Your task to perform on an android device: delete a single message in the gmail app Image 0: 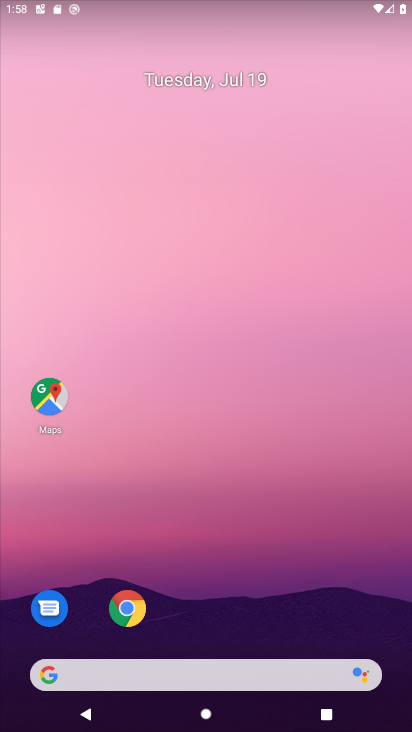
Step 0: drag from (238, 616) to (258, 172)
Your task to perform on an android device: delete a single message in the gmail app Image 1: 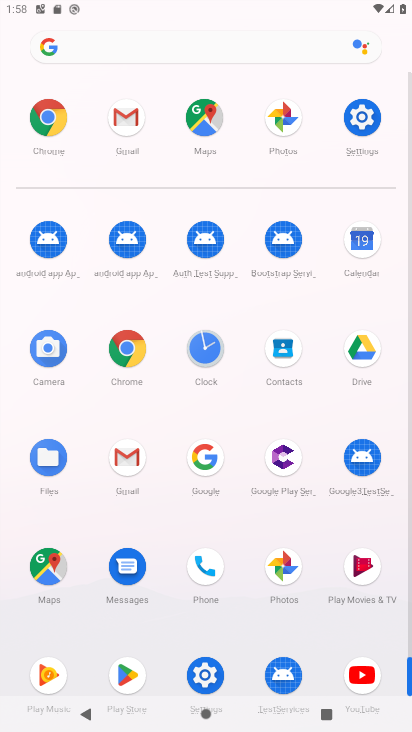
Step 1: click (130, 469)
Your task to perform on an android device: delete a single message in the gmail app Image 2: 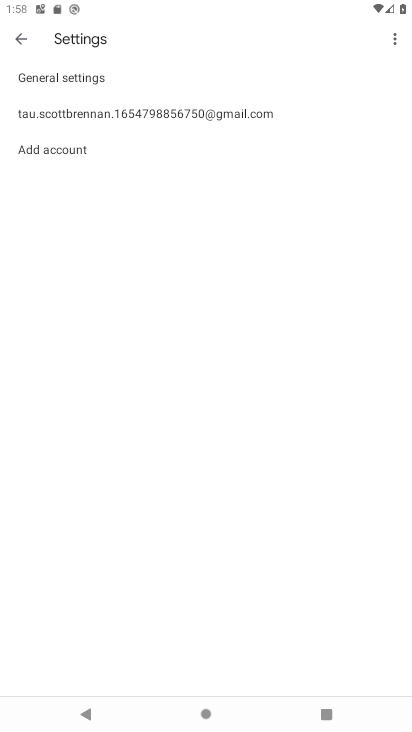
Step 2: click (99, 709)
Your task to perform on an android device: delete a single message in the gmail app Image 3: 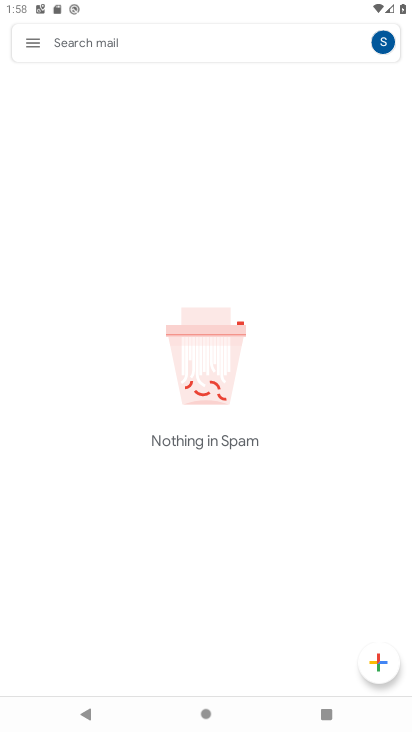
Step 3: click (34, 54)
Your task to perform on an android device: delete a single message in the gmail app Image 4: 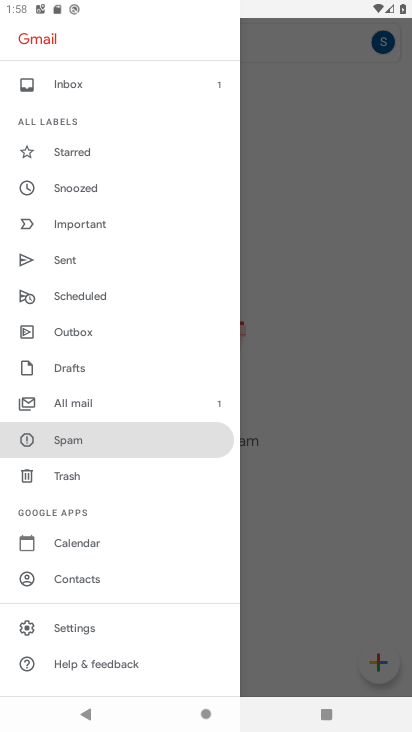
Step 4: drag from (94, 119) to (103, 437)
Your task to perform on an android device: delete a single message in the gmail app Image 5: 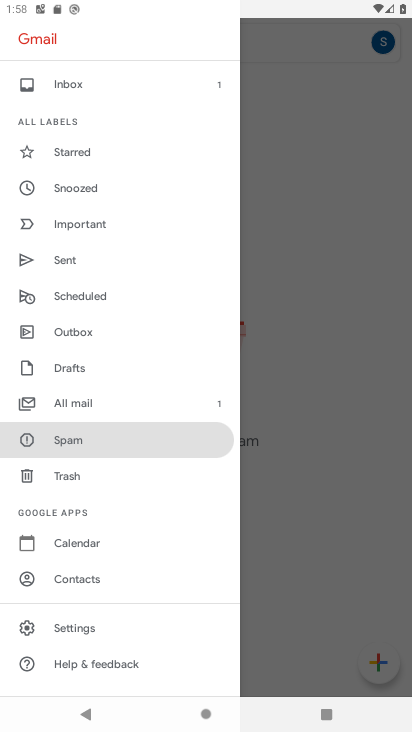
Step 5: click (103, 408)
Your task to perform on an android device: delete a single message in the gmail app Image 6: 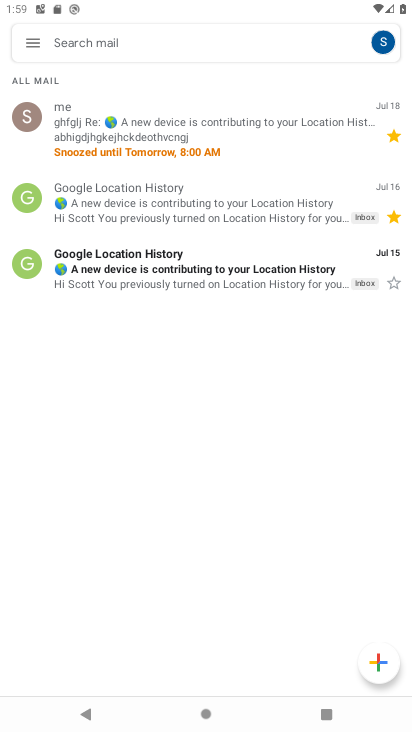
Step 6: click (213, 159)
Your task to perform on an android device: delete a single message in the gmail app Image 7: 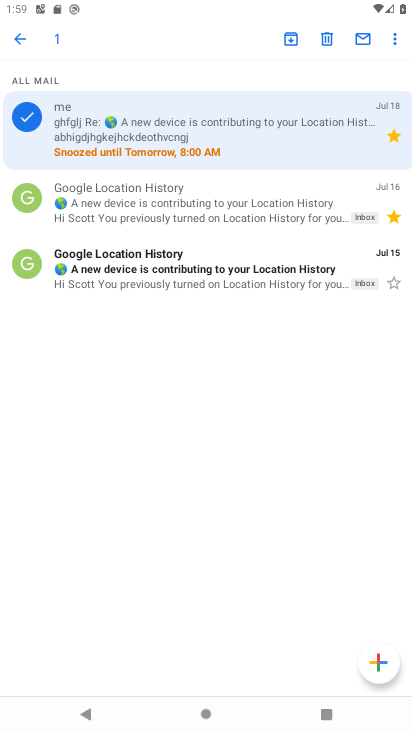
Step 7: click (330, 43)
Your task to perform on an android device: delete a single message in the gmail app Image 8: 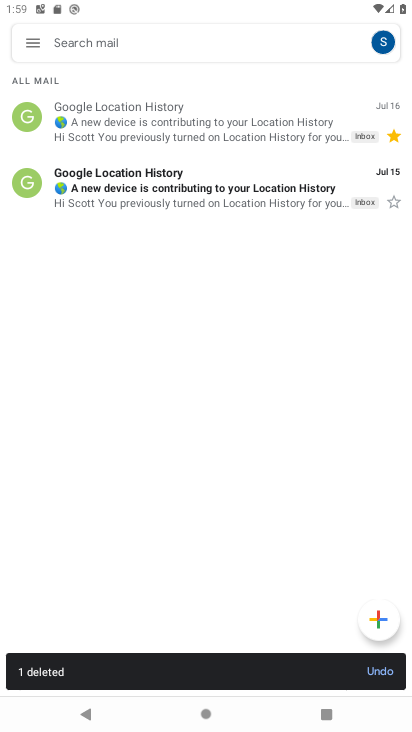
Step 8: task complete